Your task to perform on an android device: Check the news Image 0: 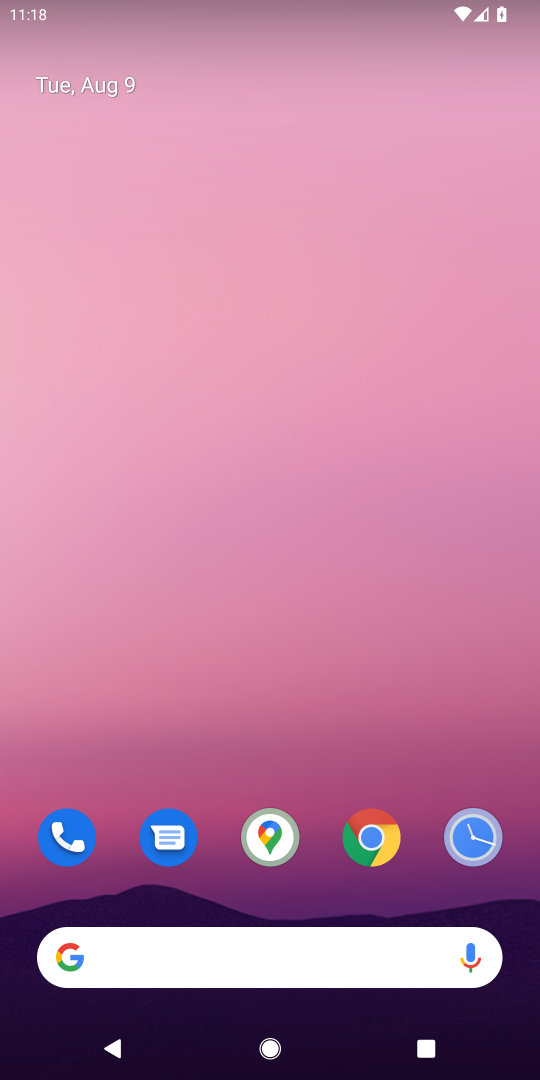
Step 0: drag from (6, 434) to (540, 464)
Your task to perform on an android device: Check the news Image 1: 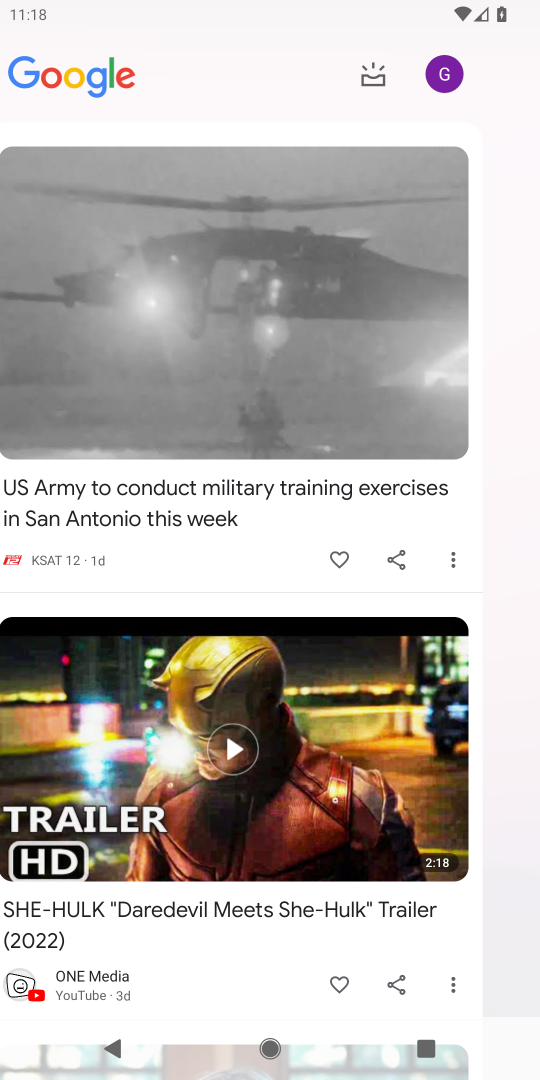
Step 1: task complete